Your task to perform on an android device: change text size in settings app Image 0: 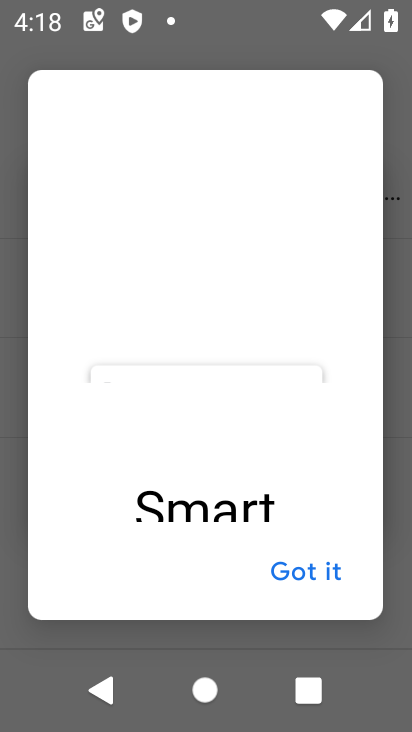
Step 0: press home button
Your task to perform on an android device: change text size in settings app Image 1: 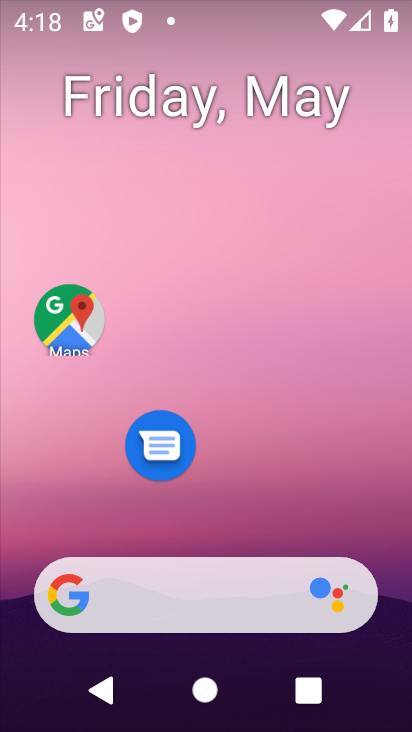
Step 1: drag from (213, 524) to (227, 21)
Your task to perform on an android device: change text size in settings app Image 2: 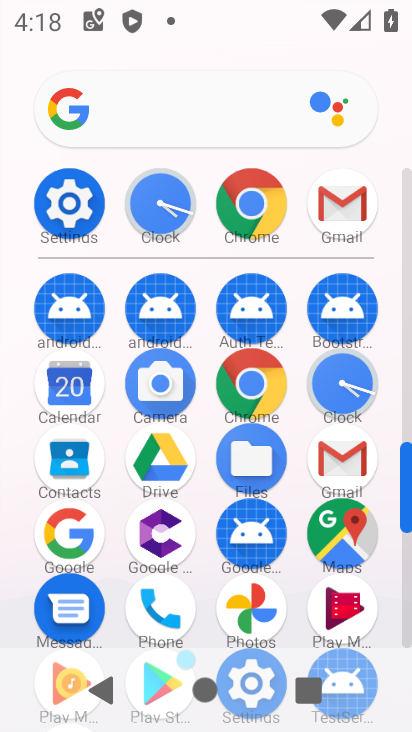
Step 2: click (74, 200)
Your task to perform on an android device: change text size in settings app Image 3: 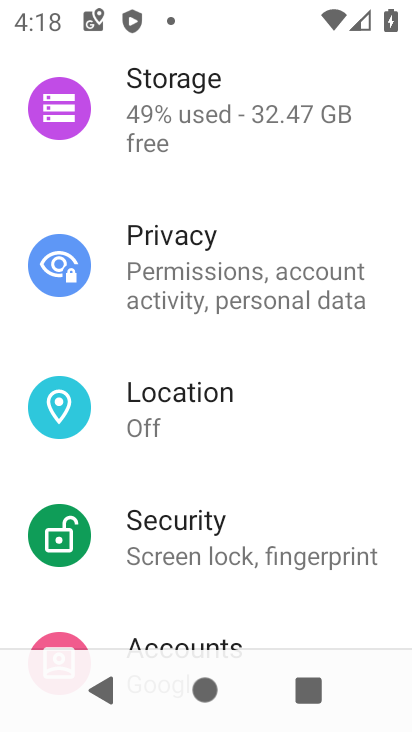
Step 3: drag from (201, 238) to (195, 607)
Your task to perform on an android device: change text size in settings app Image 4: 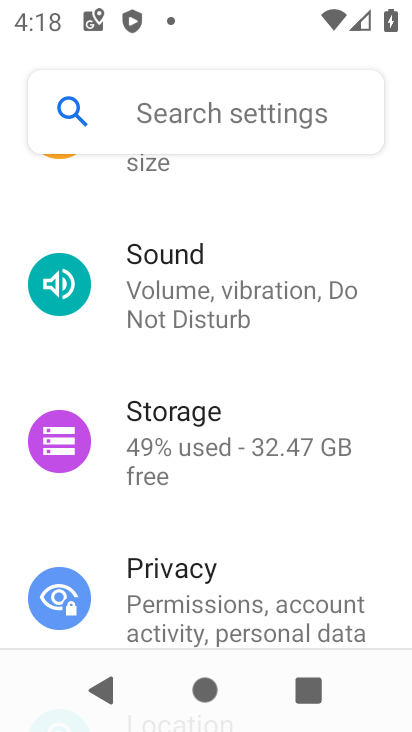
Step 4: drag from (230, 351) to (200, 631)
Your task to perform on an android device: change text size in settings app Image 5: 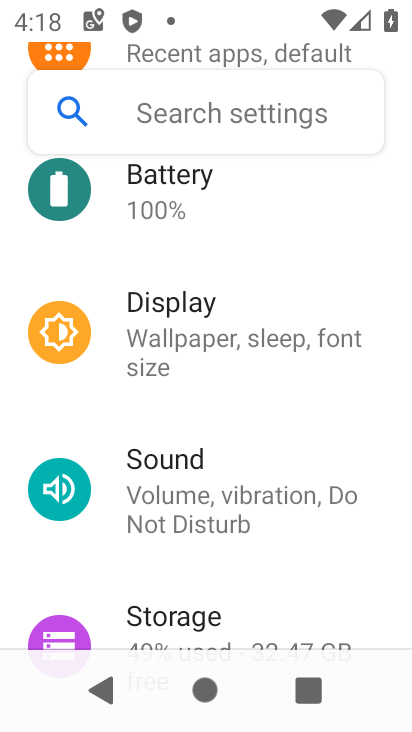
Step 5: click (189, 350)
Your task to perform on an android device: change text size in settings app Image 6: 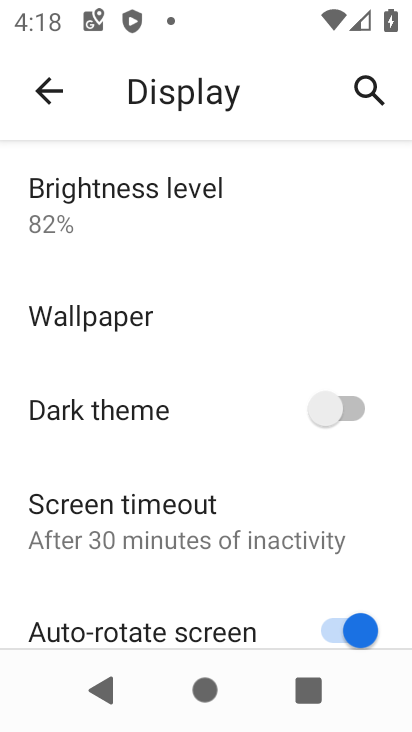
Step 6: drag from (168, 466) to (212, 152)
Your task to perform on an android device: change text size in settings app Image 7: 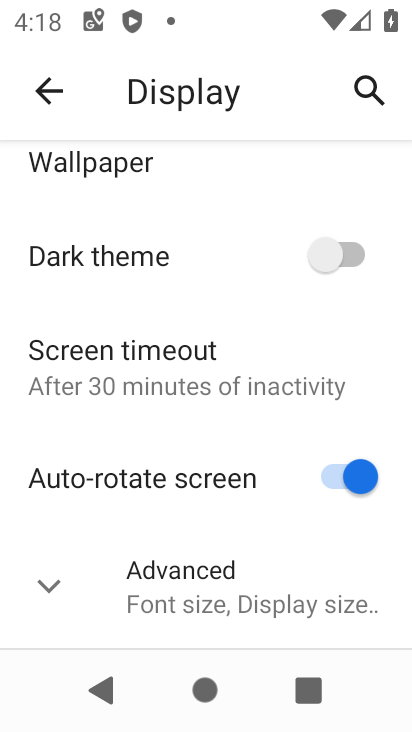
Step 7: drag from (142, 445) to (160, 252)
Your task to perform on an android device: change text size in settings app Image 8: 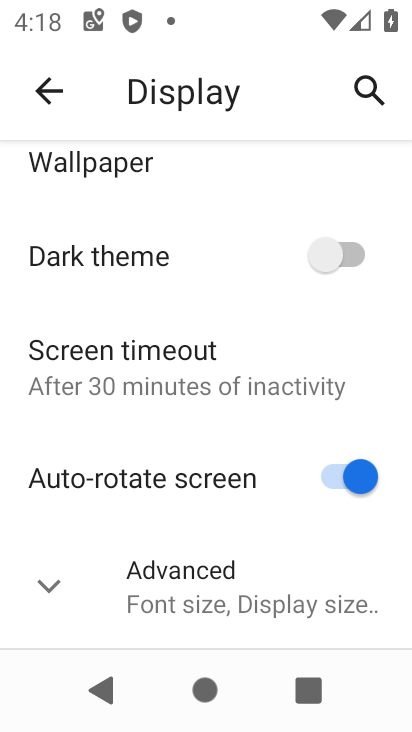
Step 8: click (134, 587)
Your task to perform on an android device: change text size in settings app Image 9: 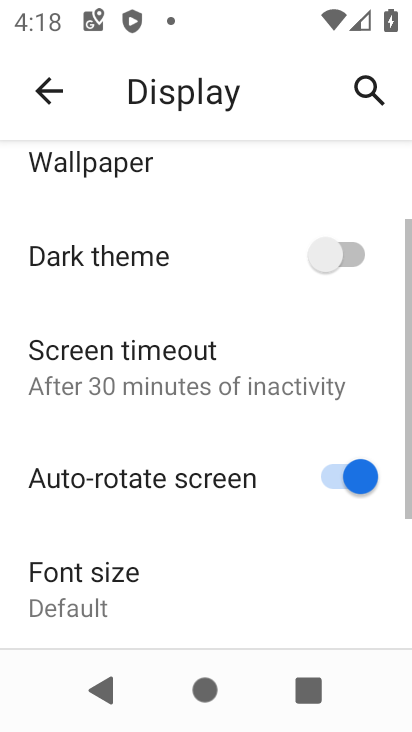
Step 9: drag from (119, 566) to (132, 333)
Your task to perform on an android device: change text size in settings app Image 10: 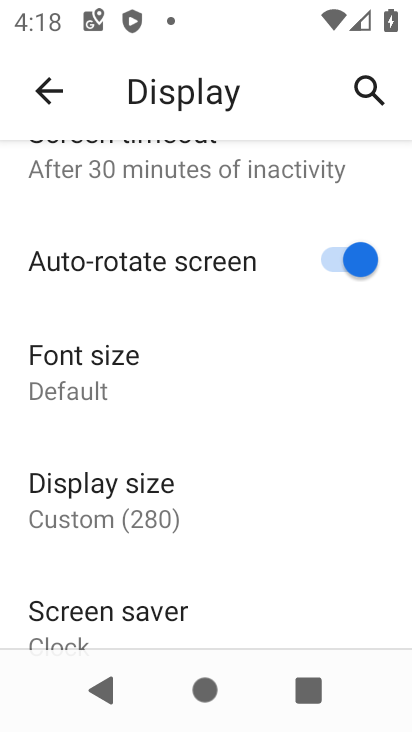
Step 10: drag from (108, 520) to (138, 315)
Your task to perform on an android device: change text size in settings app Image 11: 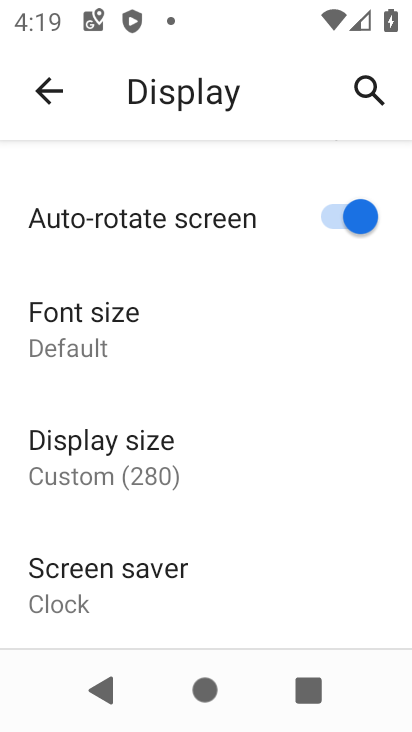
Step 11: click (96, 332)
Your task to perform on an android device: change text size in settings app Image 12: 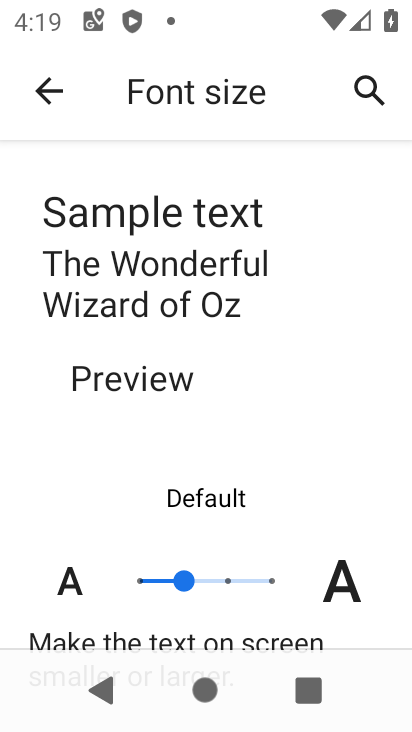
Step 12: click (139, 578)
Your task to perform on an android device: change text size in settings app Image 13: 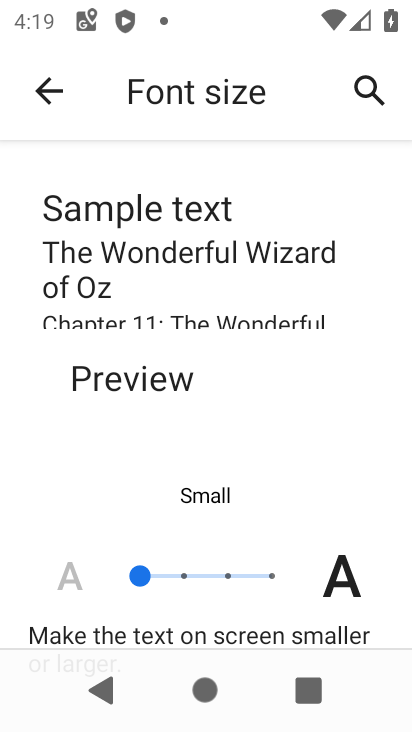
Step 13: task complete